Your task to perform on an android device: toggle show notifications on the lock screen Image 0: 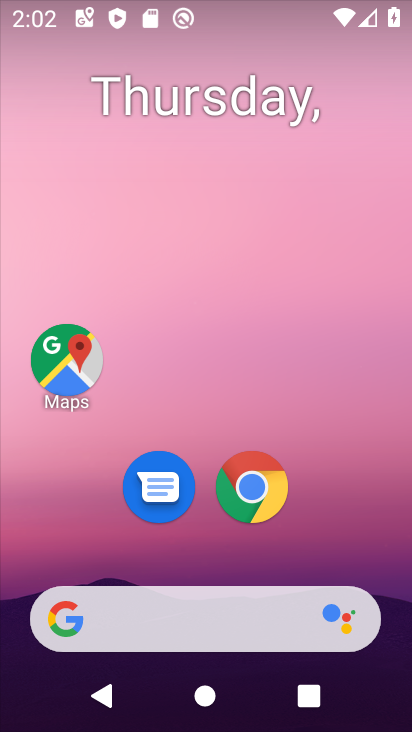
Step 0: drag from (199, 553) to (296, 19)
Your task to perform on an android device: toggle show notifications on the lock screen Image 1: 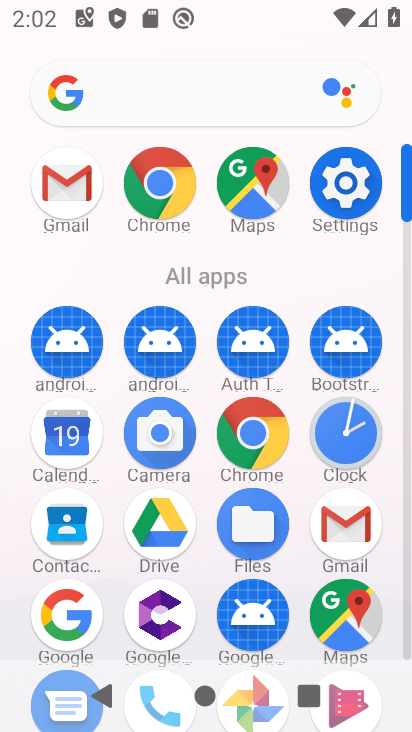
Step 1: click (338, 184)
Your task to perform on an android device: toggle show notifications on the lock screen Image 2: 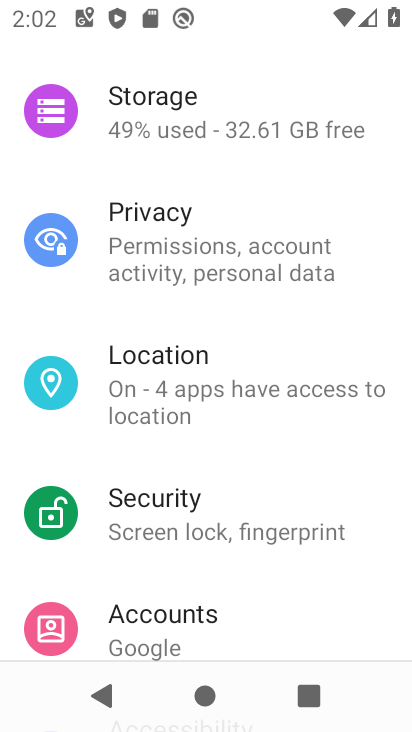
Step 2: drag from (183, 273) to (212, 464)
Your task to perform on an android device: toggle show notifications on the lock screen Image 3: 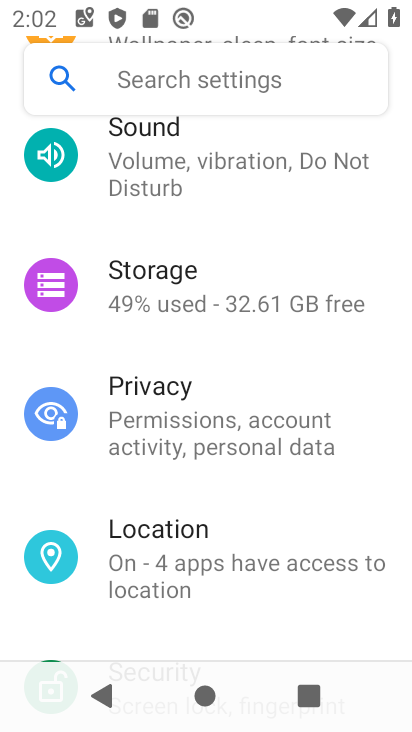
Step 3: drag from (248, 294) to (293, 491)
Your task to perform on an android device: toggle show notifications on the lock screen Image 4: 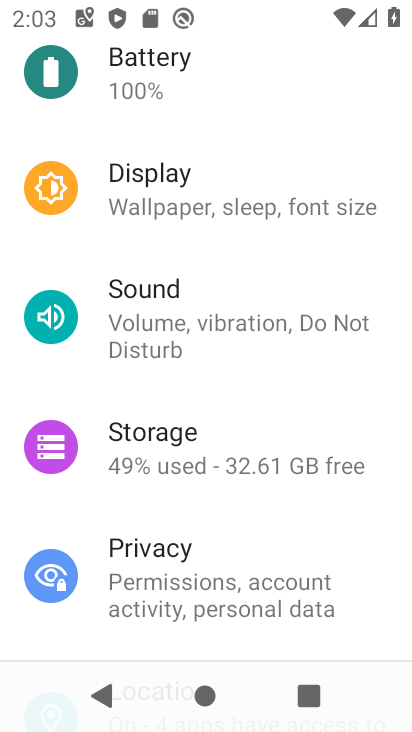
Step 4: drag from (279, 374) to (301, 537)
Your task to perform on an android device: toggle show notifications on the lock screen Image 5: 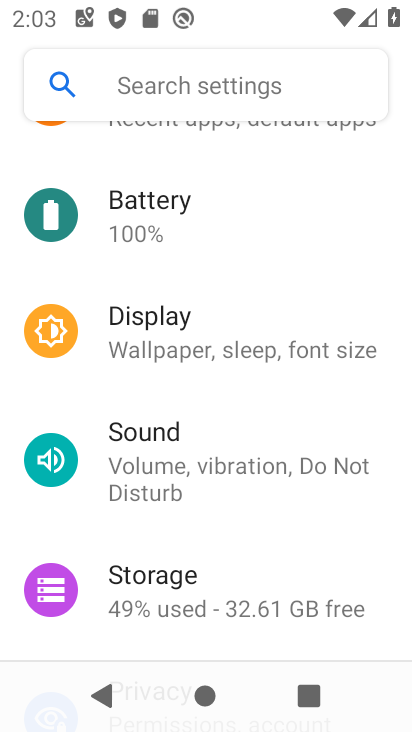
Step 5: drag from (267, 205) to (309, 469)
Your task to perform on an android device: toggle show notifications on the lock screen Image 6: 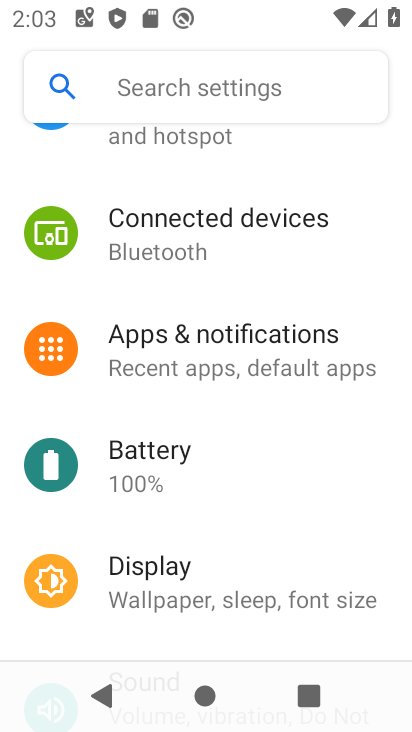
Step 6: click (234, 336)
Your task to perform on an android device: toggle show notifications on the lock screen Image 7: 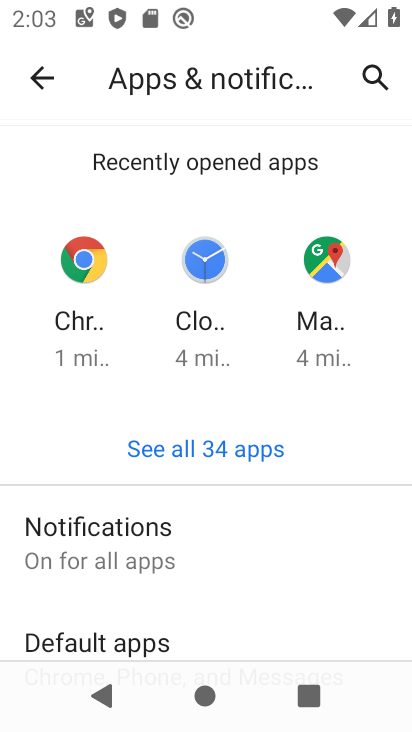
Step 7: click (152, 539)
Your task to perform on an android device: toggle show notifications on the lock screen Image 8: 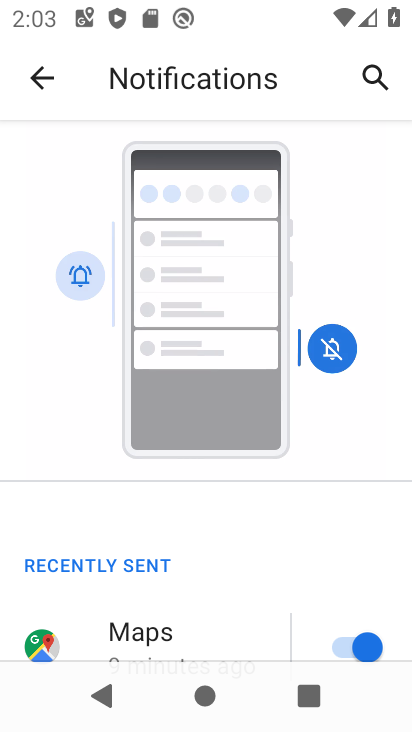
Step 8: drag from (138, 593) to (142, 386)
Your task to perform on an android device: toggle show notifications on the lock screen Image 9: 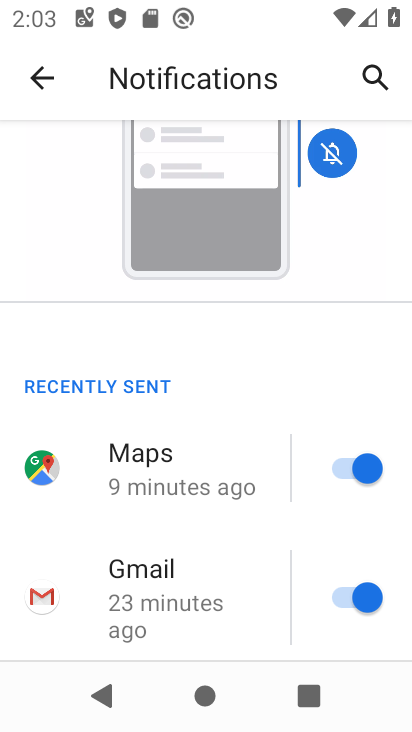
Step 9: drag from (109, 645) to (154, 330)
Your task to perform on an android device: toggle show notifications on the lock screen Image 10: 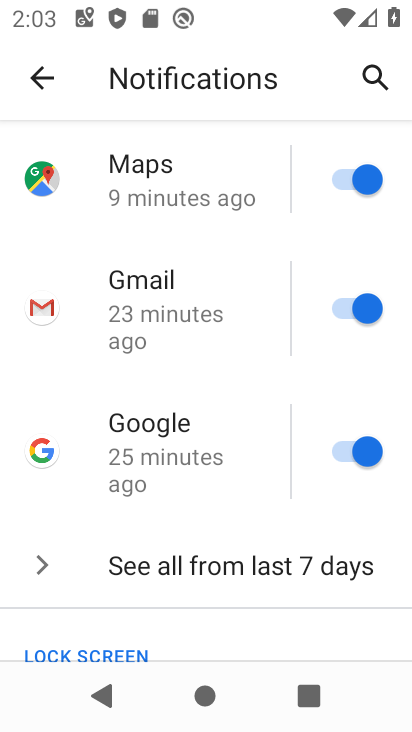
Step 10: drag from (205, 598) to (219, 260)
Your task to perform on an android device: toggle show notifications on the lock screen Image 11: 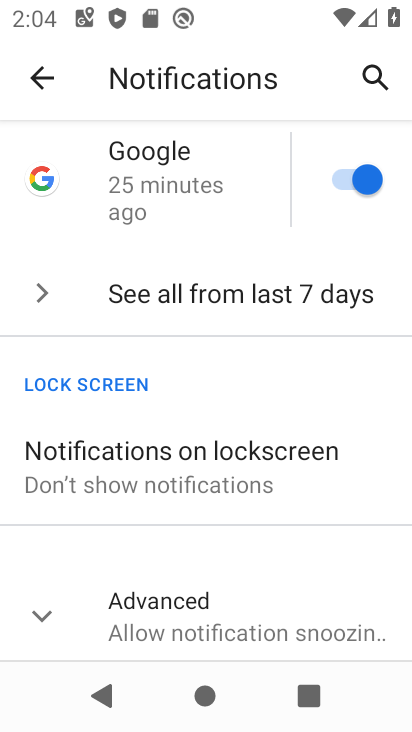
Step 11: click (175, 484)
Your task to perform on an android device: toggle show notifications on the lock screen Image 12: 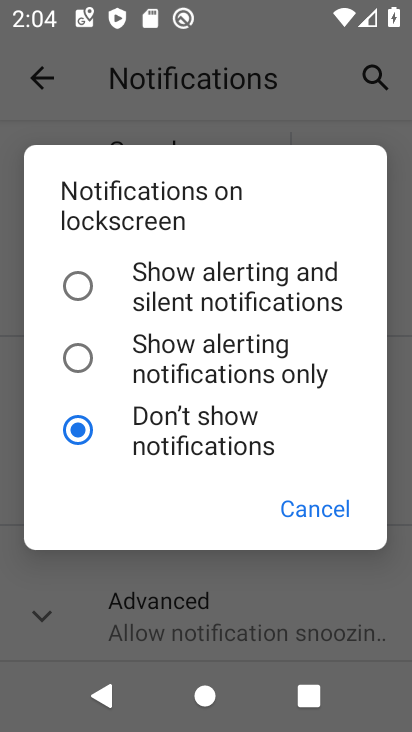
Step 12: click (201, 302)
Your task to perform on an android device: toggle show notifications on the lock screen Image 13: 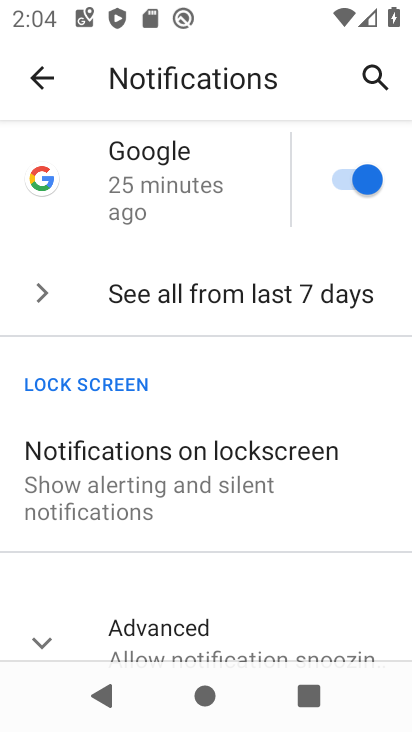
Step 13: task complete